Your task to perform on an android device: Clear the cart on walmart. Add bose soundlink to the cart on walmart Image 0: 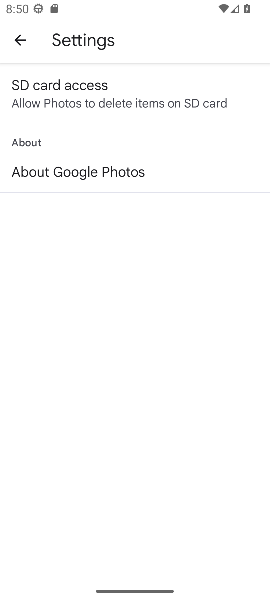
Step 0: press home button
Your task to perform on an android device: Clear the cart on walmart. Add bose soundlink to the cart on walmart Image 1: 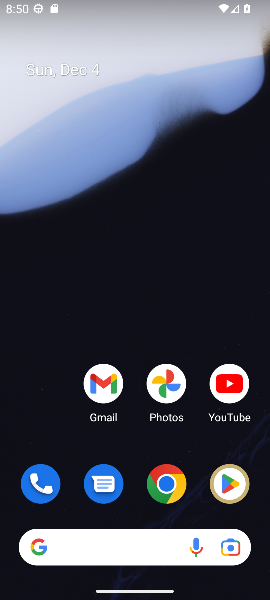
Step 1: click (169, 479)
Your task to perform on an android device: Clear the cart on walmart. Add bose soundlink to the cart on walmart Image 2: 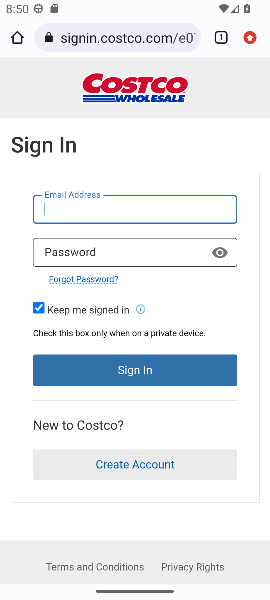
Step 2: click (119, 40)
Your task to perform on an android device: Clear the cart on walmart. Add bose soundlink to the cart on walmart Image 3: 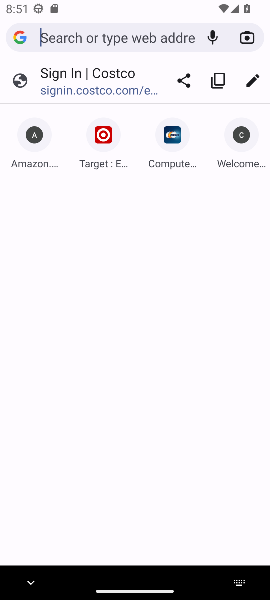
Step 3: type "walmart.com"
Your task to perform on an android device: Clear the cart on walmart. Add bose soundlink to the cart on walmart Image 4: 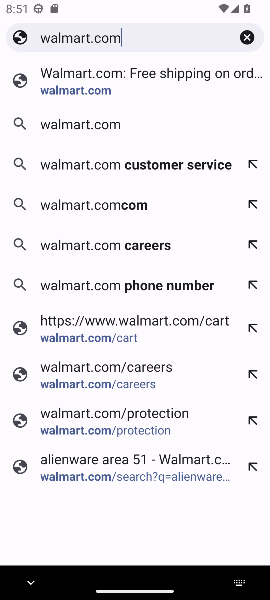
Step 4: click (55, 96)
Your task to perform on an android device: Clear the cart on walmart. Add bose soundlink to the cart on walmart Image 5: 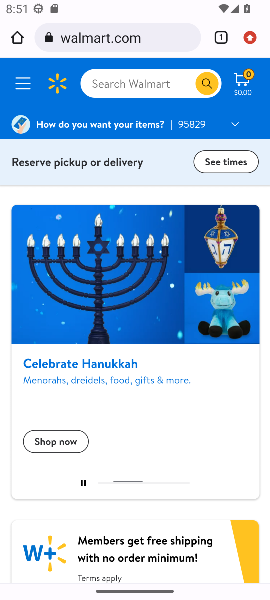
Step 5: click (244, 84)
Your task to perform on an android device: Clear the cart on walmart. Add bose soundlink to the cart on walmart Image 6: 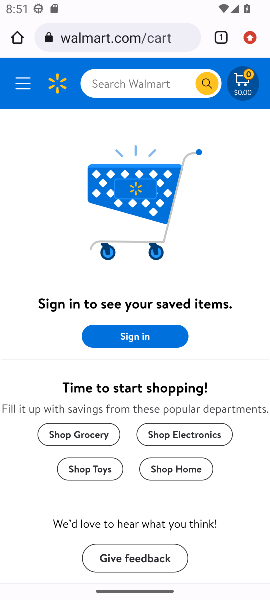
Step 6: click (108, 83)
Your task to perform on an android device: Clear the cart on walmart. Add bose soundlink to the cart on walmart Image 7: 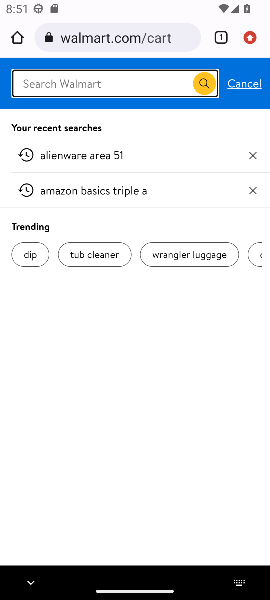
Step 7: type "bose soundlink"
Your task to perform on an android device: Clear the cart on walmart. Add bose soundlink to the cart on walmart Image 8: 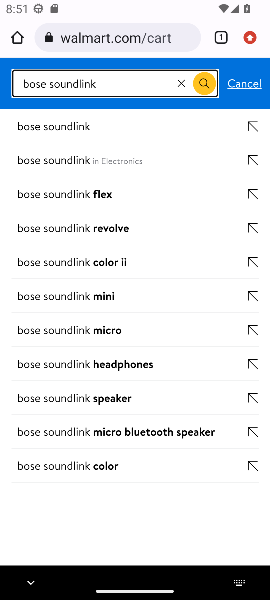
Step 8: click (45, 131)
Your task to perform on an android device: Clear the cart on walmart. Add bose soundlink to the cart on walmart Image 9: 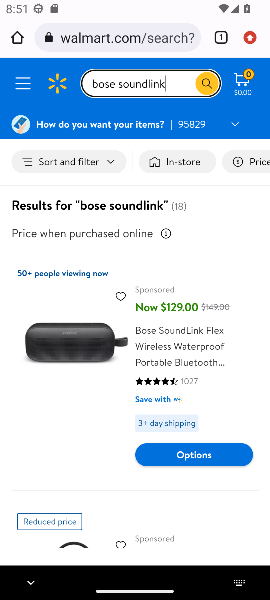
Step 9: click (205, 353)
Your task to perform on an android device: Clear the cart on walmart. Add bose soundlink to the cart on walmart Image 10: 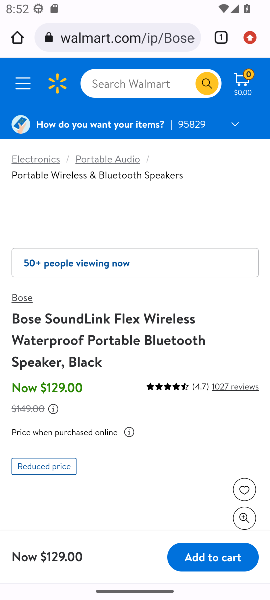
Step 10: click (210, 560)
Your task to perform on an android device: Clear the cart on walmart. Add bose soundlink to the cart on walmart Image 11: 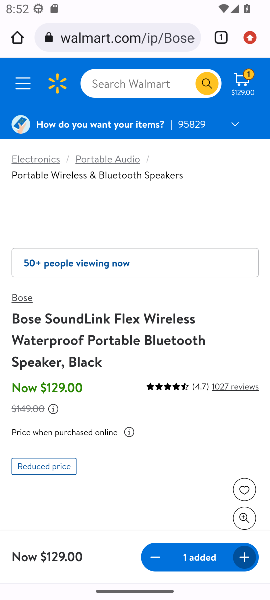
Step 11: task complete